Your task to perform on an android device: Open sound settings Image 0: 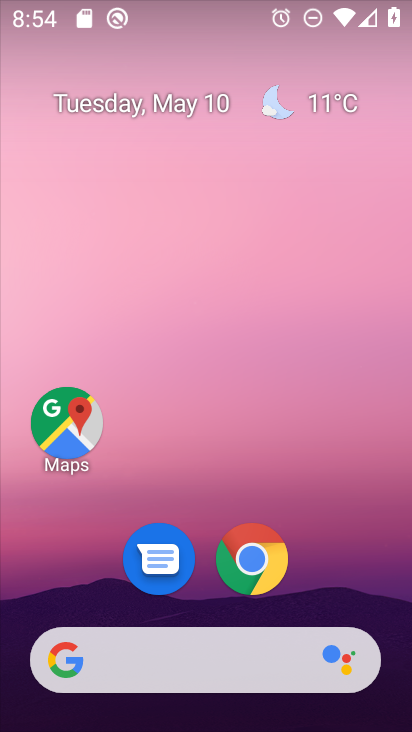
Step 0: drag from (208, 723) to (212, 256)
Your task to perform on an android device: Open sound settings Image 1: 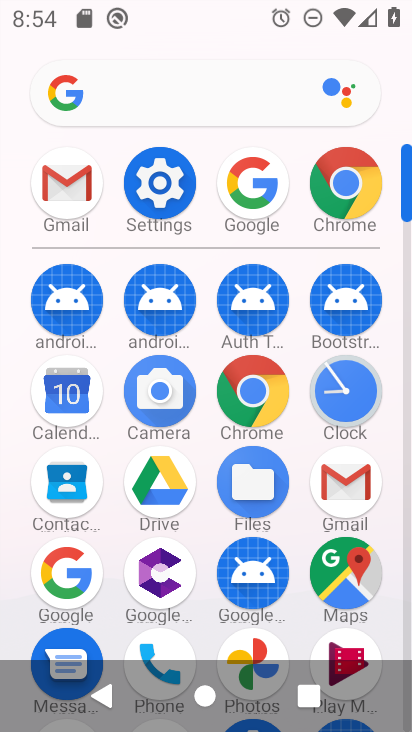
Step 1: click (168, 181)
Your task to perform on an android device: Open sound settings Image 2: 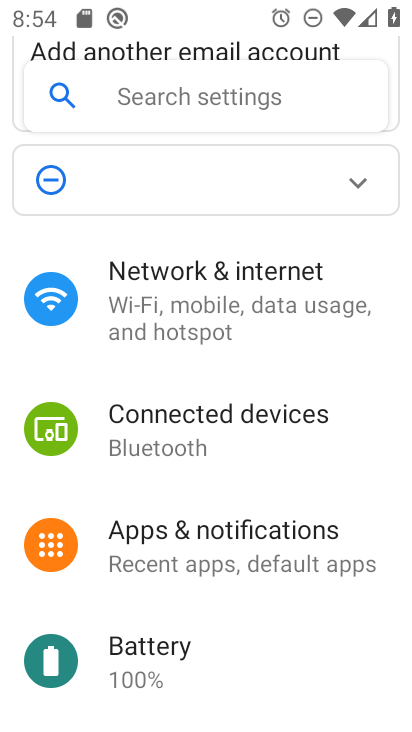
Step 2: drag from (269, 675) to (279, 357)
Your task to perform on an android device: Open sound settings Image 3: 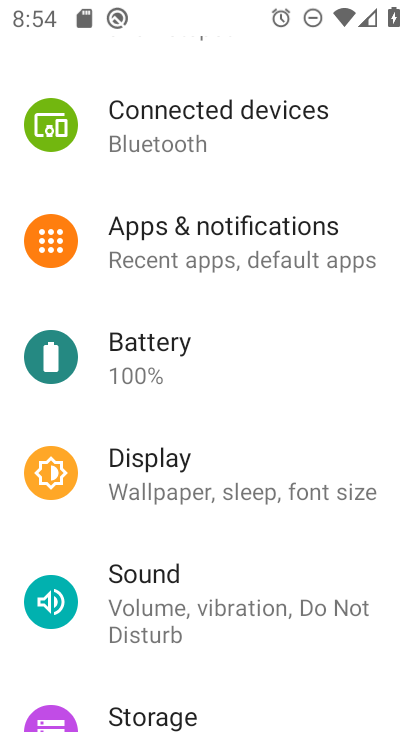
Step 3: click (176, 599)
Your task to perform on an android device: Open sound settings Image 4: 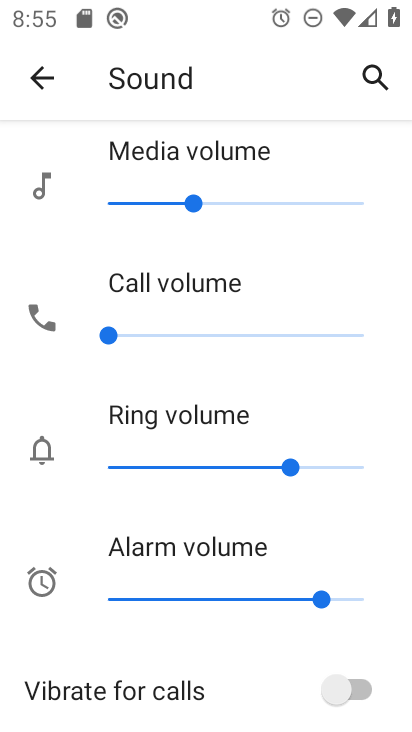
Step 4: task complete